Your task to perform on an android device: Look up the best rated book on Goodreads Image 0: 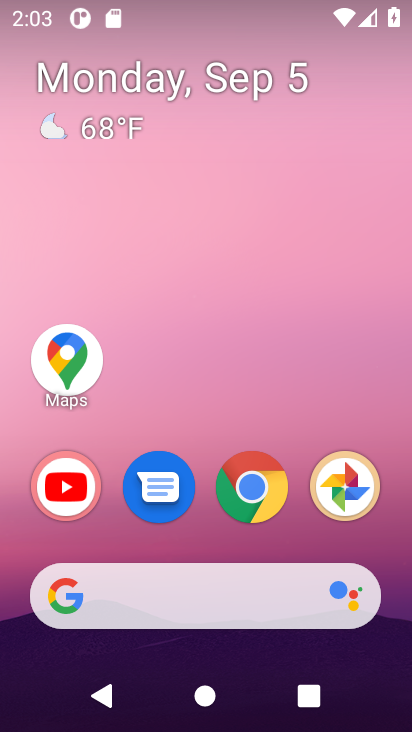
Step 0: click (267, 507)
Your task to perform on an android device: Look up the best rated book on Goodreads Image 1: 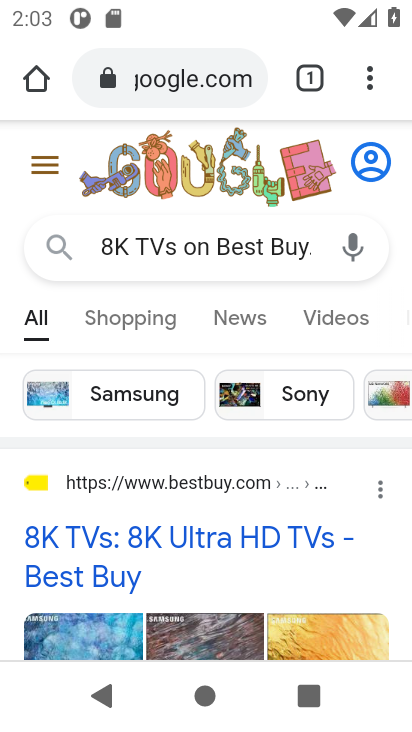
Step 1: click (207, 87)
Your task to perform on an android device: Look up the best rated book on Goodreads Image 2: 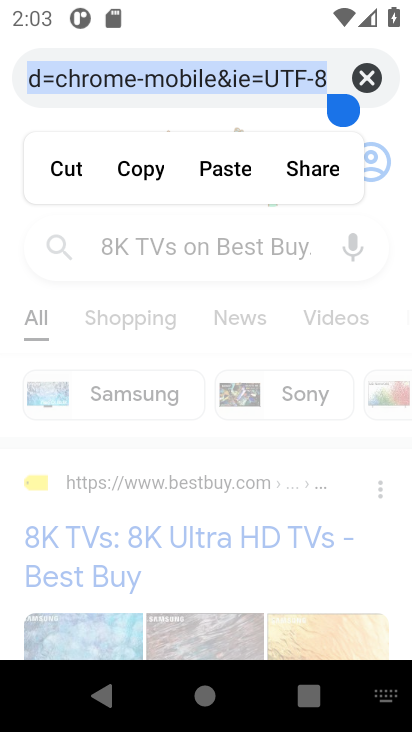
Step 2: click (359, 73)
Your task to perform on an android device: Look up the best rated book on Goodreads Image 3: 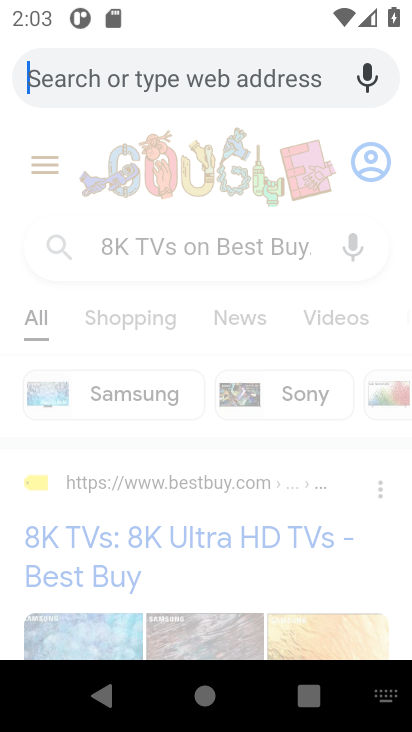
Step 3: type "the best rated book on Goodreads"
Your task to perform on an android device: Look up the best rated book on Goodreads Image 4: 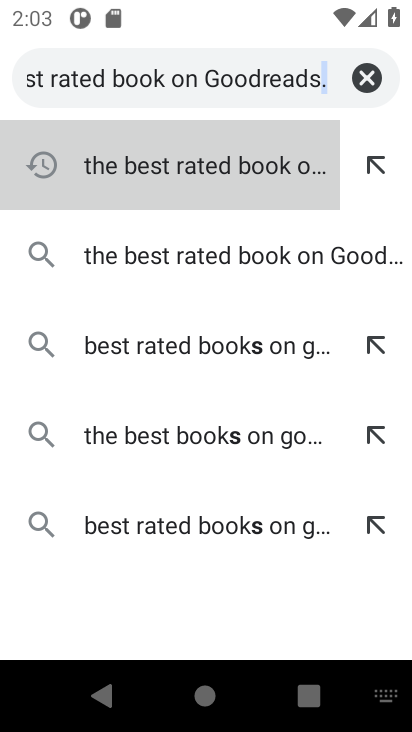
Step 4: click (196, 151)
Your task to perform on an android device: Look up the best rated book on Goodreads Image 5: 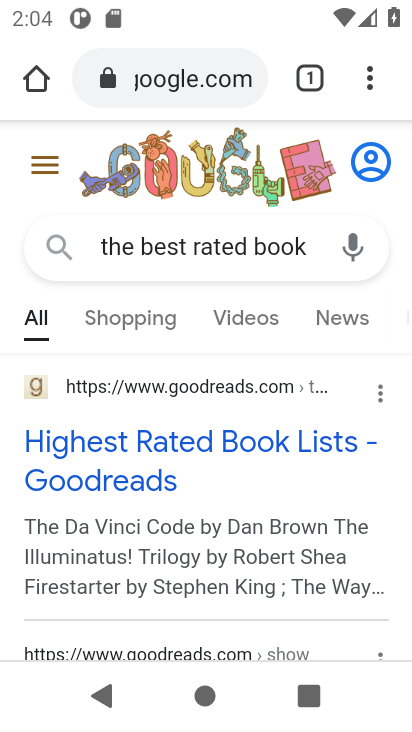
Step 5: task complete